Your task to perform on an android device: allow cookies in the chrome app Image 0: 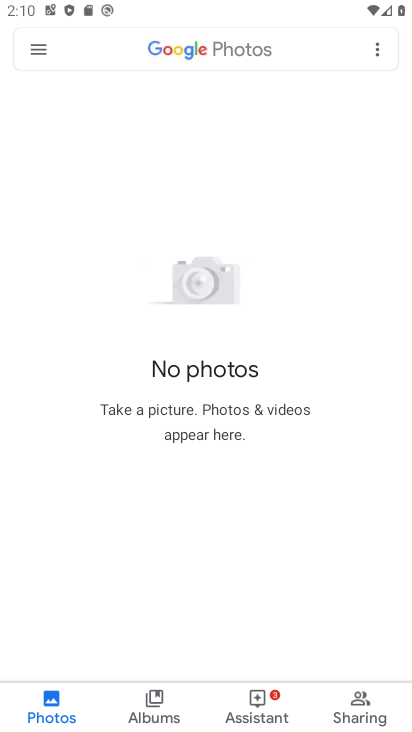
Step 0: press home button
Your task to perform on an android device: allow cookies in the chrome app Image 1: 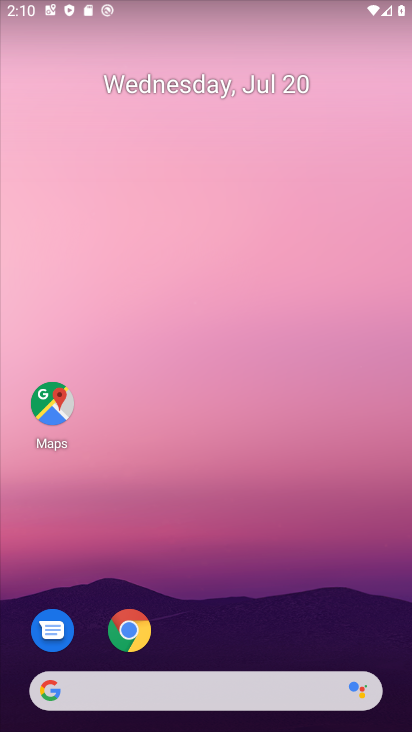
Step 1: drag from (371, 626) to (391, 136)
Your task to perform on an android device: allow cookies in the chrome app Image 2: 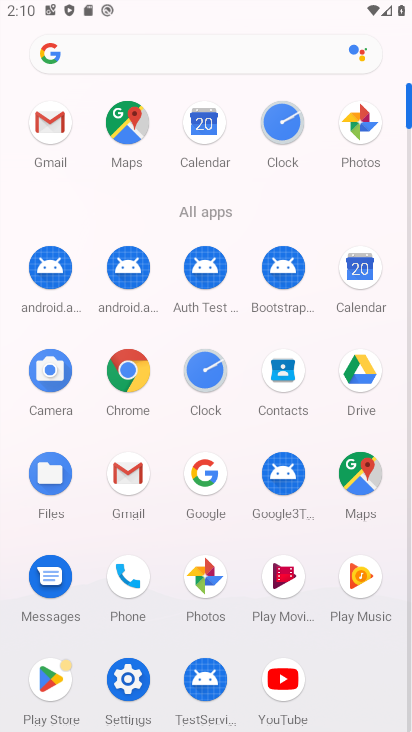
Step 2: click (131, 367)
Your task to perform on an android device: allow cookies in the chrome app Image 3: 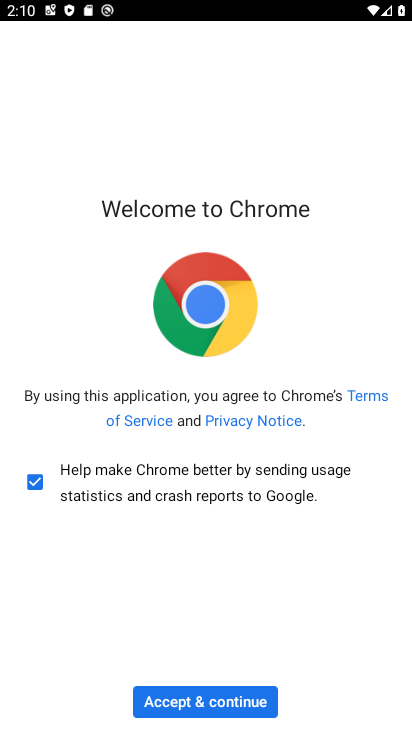
Step 3: click (204, 711)
Your task to perform on an android device: allow cookies in the chrome app Image 4: 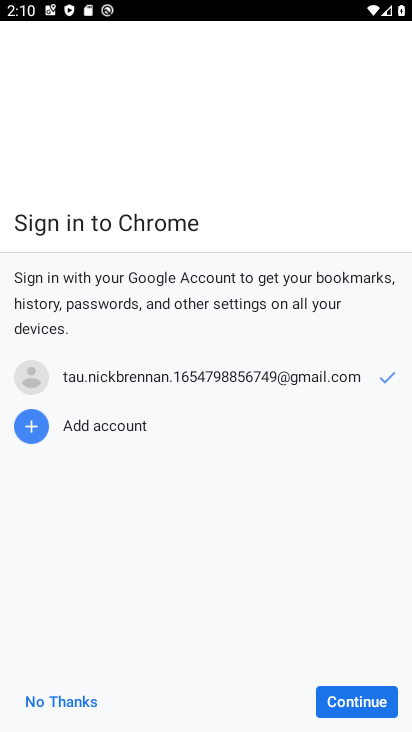
Step 4: click (338, 707)
Your task to perform on an android device: allow cookies in the chrome app Image 5: 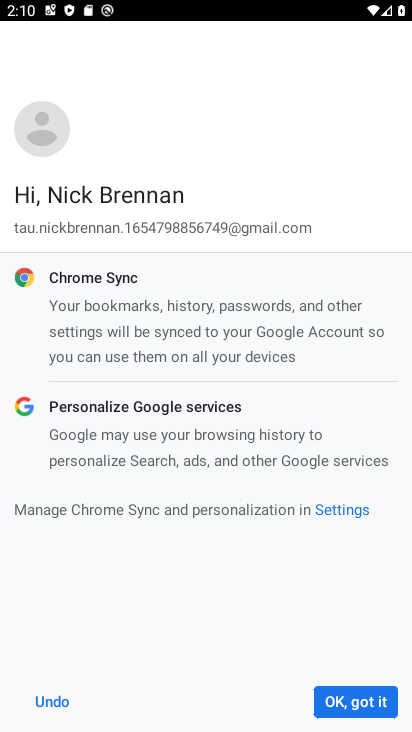
Step 5: click (357, 696)
Your task to perform on an android device: allow cookies in the chrome app Image 6: 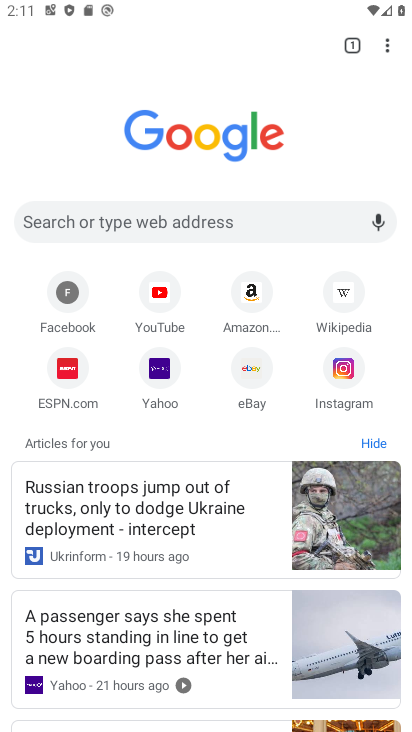
Step 6: click (386, 50)
Your task to perform on an android device: allow cookies in the chrome app Image 7: 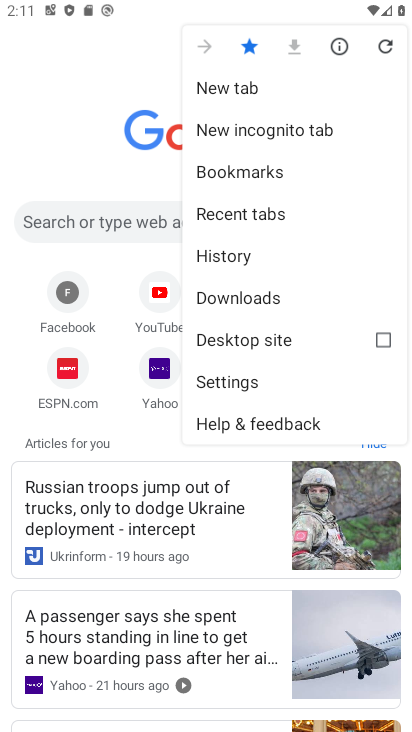
Step 7: click (266, 378)
Your task to perform on an android device: allow cookies in the chrome app Image 8: 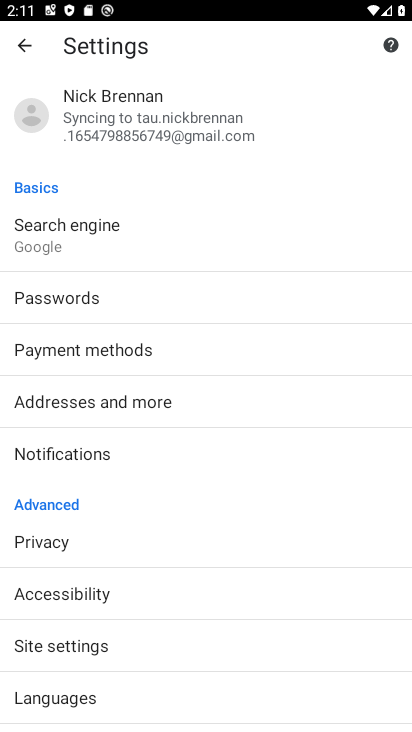
Step 8: drag from (258, 470) to (274, 373)
Your task to perform on an android device: allow cookies in the chrome app Image 9: 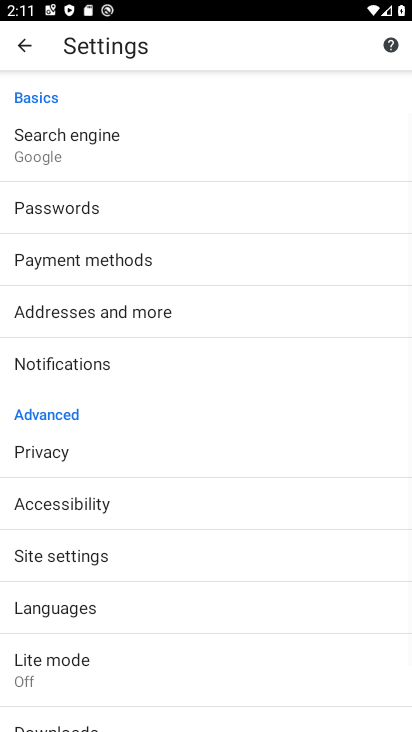
Step 9: drag from (293, 466) to (295, 278)
Your task to perform on an android device: allow cookies in the chrome app Image 10: 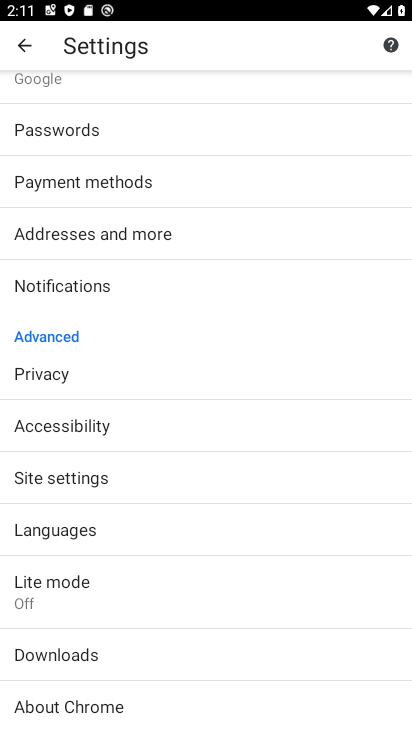
Step 10: drag from (270, 459) to (277, 336)
Your task to perform on an android device: allow cookies in the chrome app Image 11: 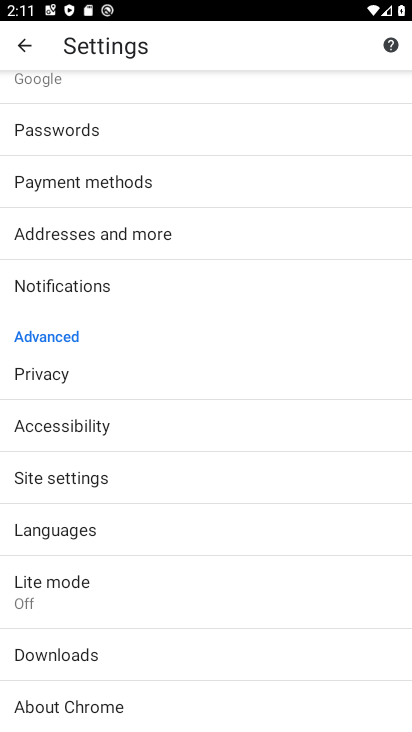
Step 11: drag from (292, 236) to (280, 340)
Your task to perform on an android device: allow cookies in the chrome app Image 12: 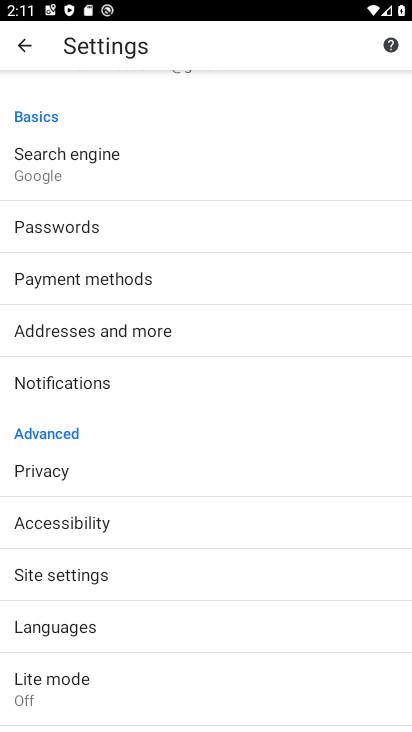
Step 12: click (256, 575)
Your task to perform on an android device: allow cookies in the chrome app Image 13: 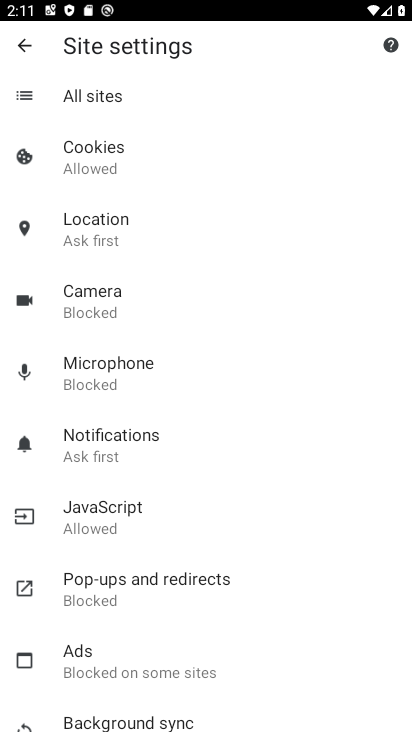
Step 13: drag from (308, 449) to (302, 350)
Your task to perform on an android device: allow cookies in the chrome app Image 14: 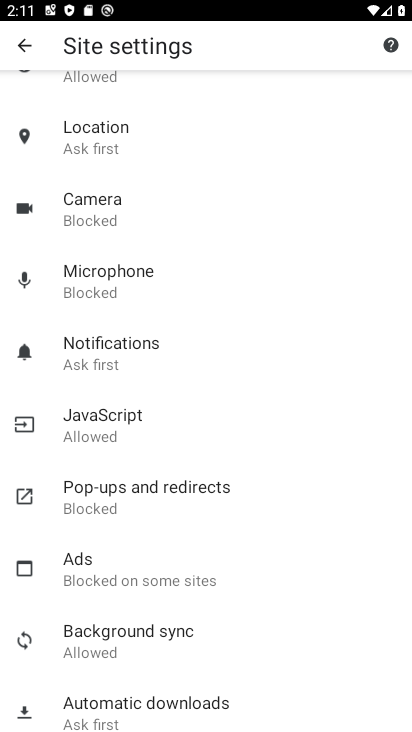
Step 14: drag from (301, 472) to (306, 365)
Your task to perform on an android device: allow cookies in the chrome app Image 15: 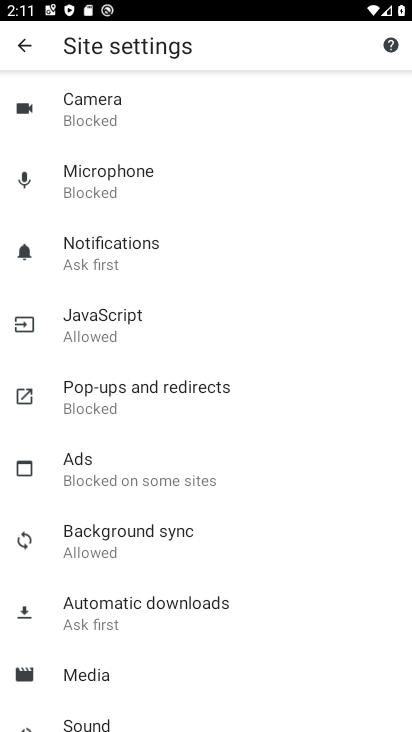
Step 15: drag from (293, 178) to (302, 482)
Your task to perform on an android device: allow cookies in the chrome app Image 16: 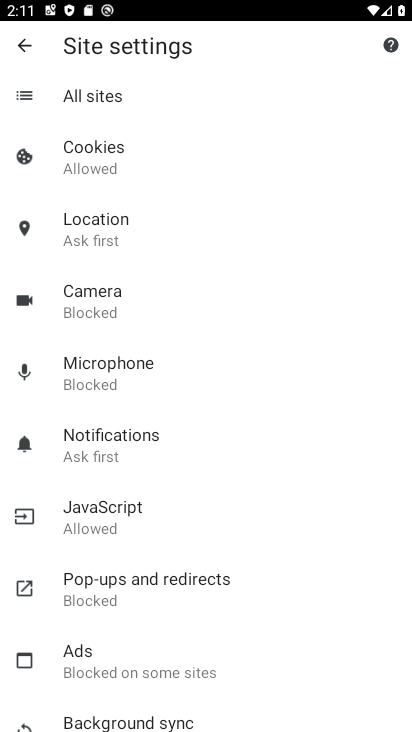
Step 16: drag from (308, 206) to (323, 429)
Your task to perform on an android device: allow cookies in the chrome app Image 17: 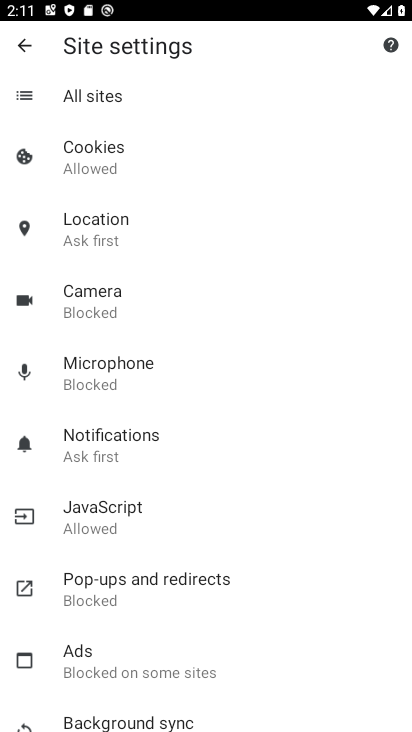
Step 17: click (136, 167)
Your task to perform on an android device: allow cookies in the chrome app Image 18: 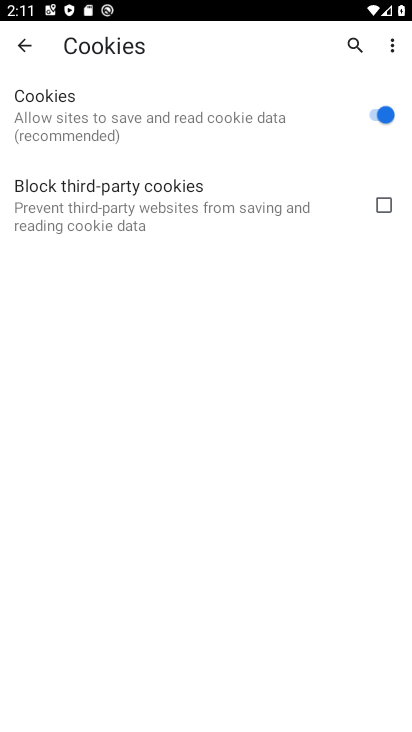
Step 18: task complete